Your task to perform on an android device: Clear the cart on target.com. Image 0: 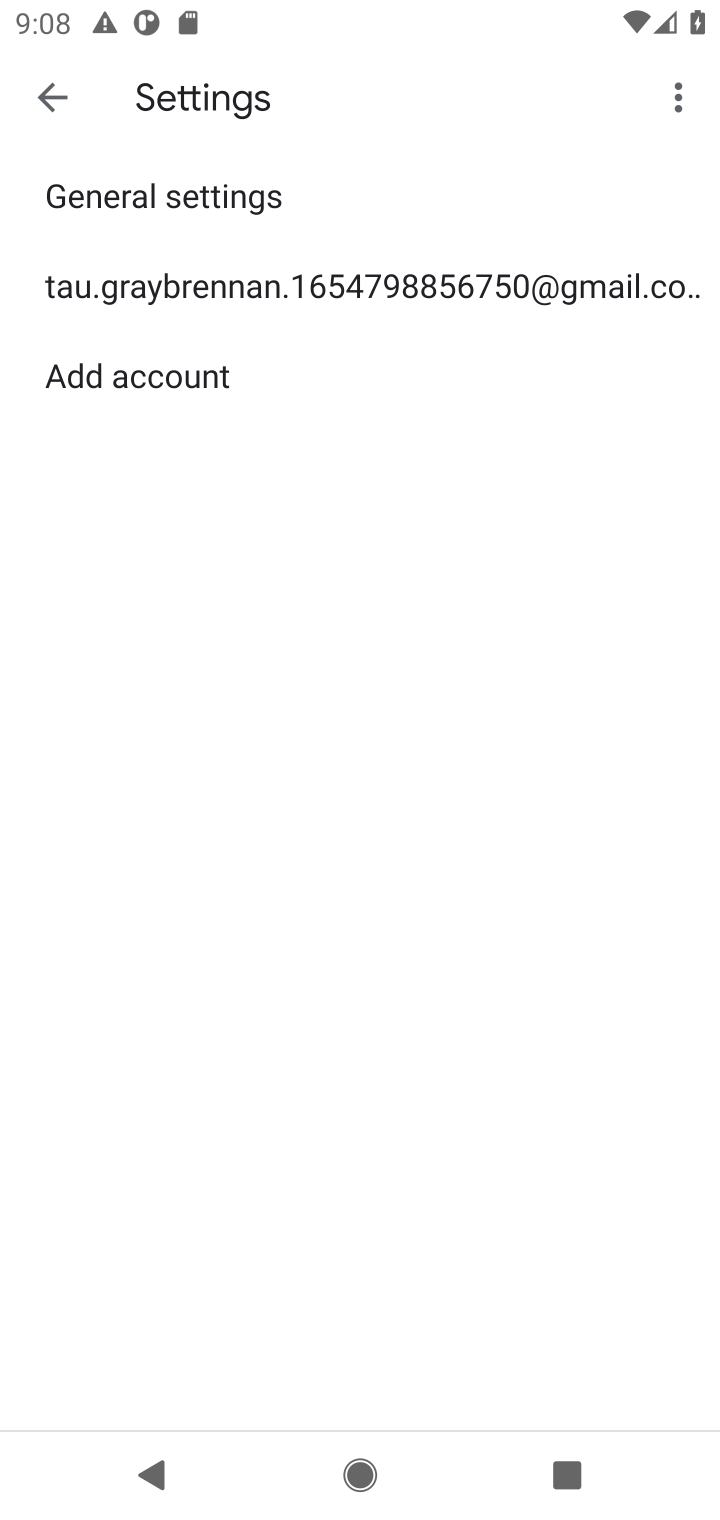
Step 0: press home button
Your task to perform on an android device: Clear the cart on target.com. Image 1: 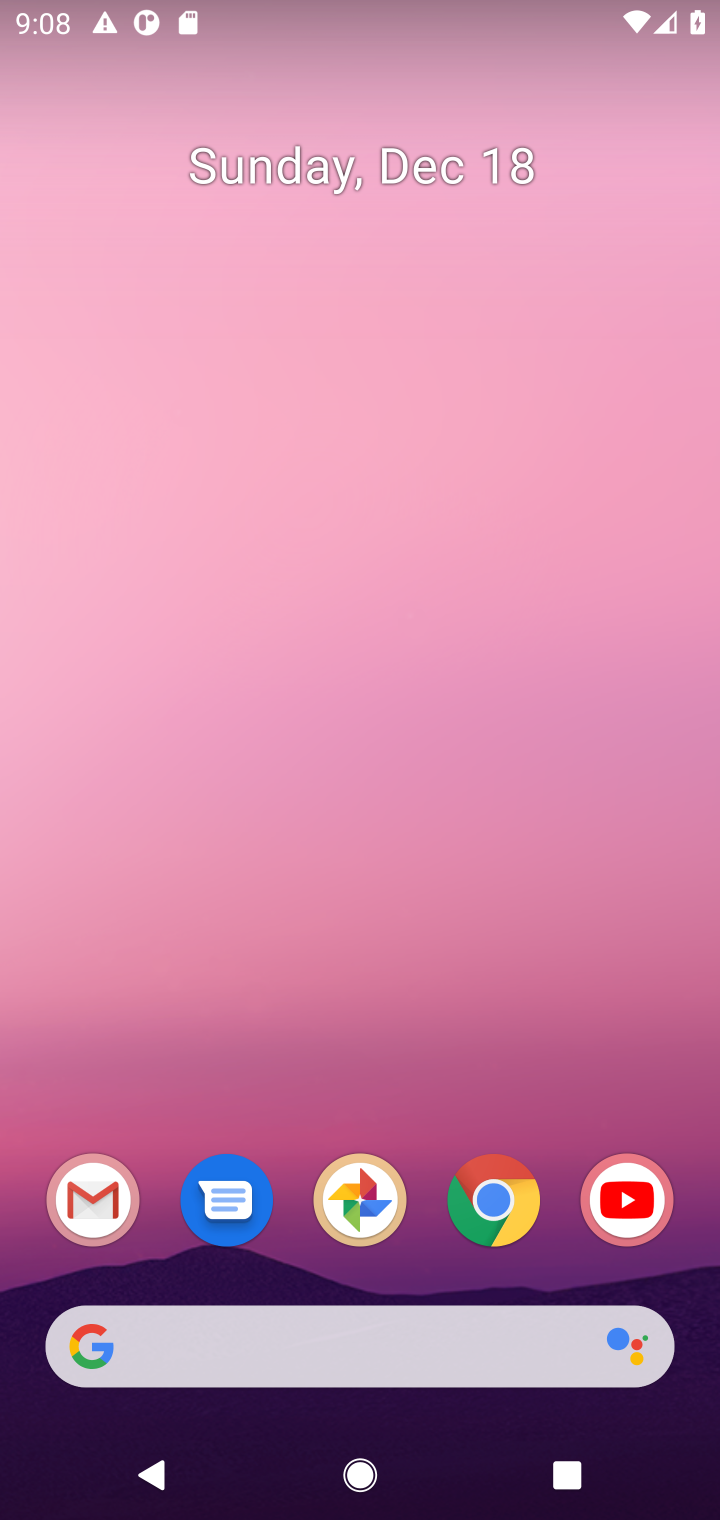
Step 1: click (504, 1192)
Your task to perform on an android device: Clear the cart on target.com. Image 2: 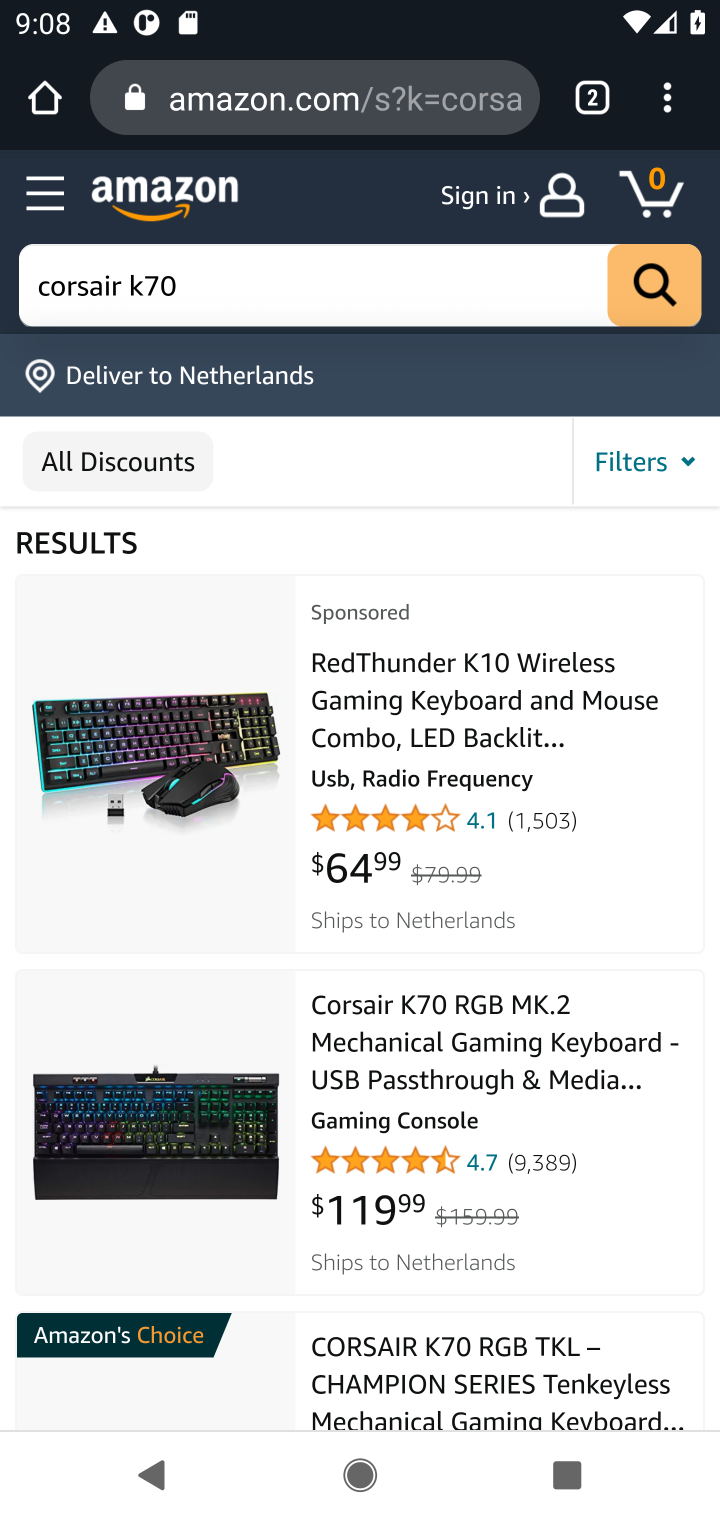
Step 2: click (278, 108)
Your task to perform on an android device: Clear the cart on target.com. Image 3: 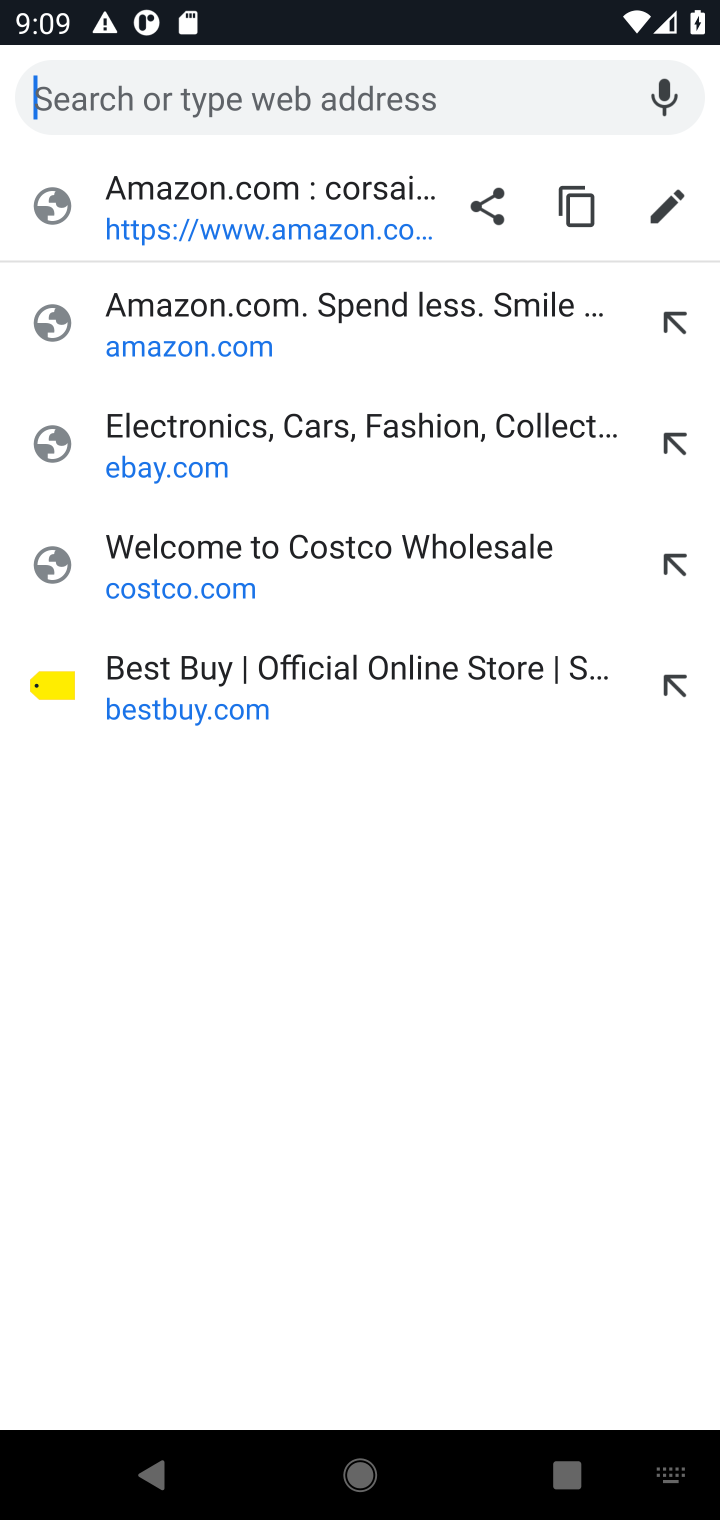
Step 3: type "target.com"
Your task to perform on an android device: Clear the cart on target.com. Image 4: 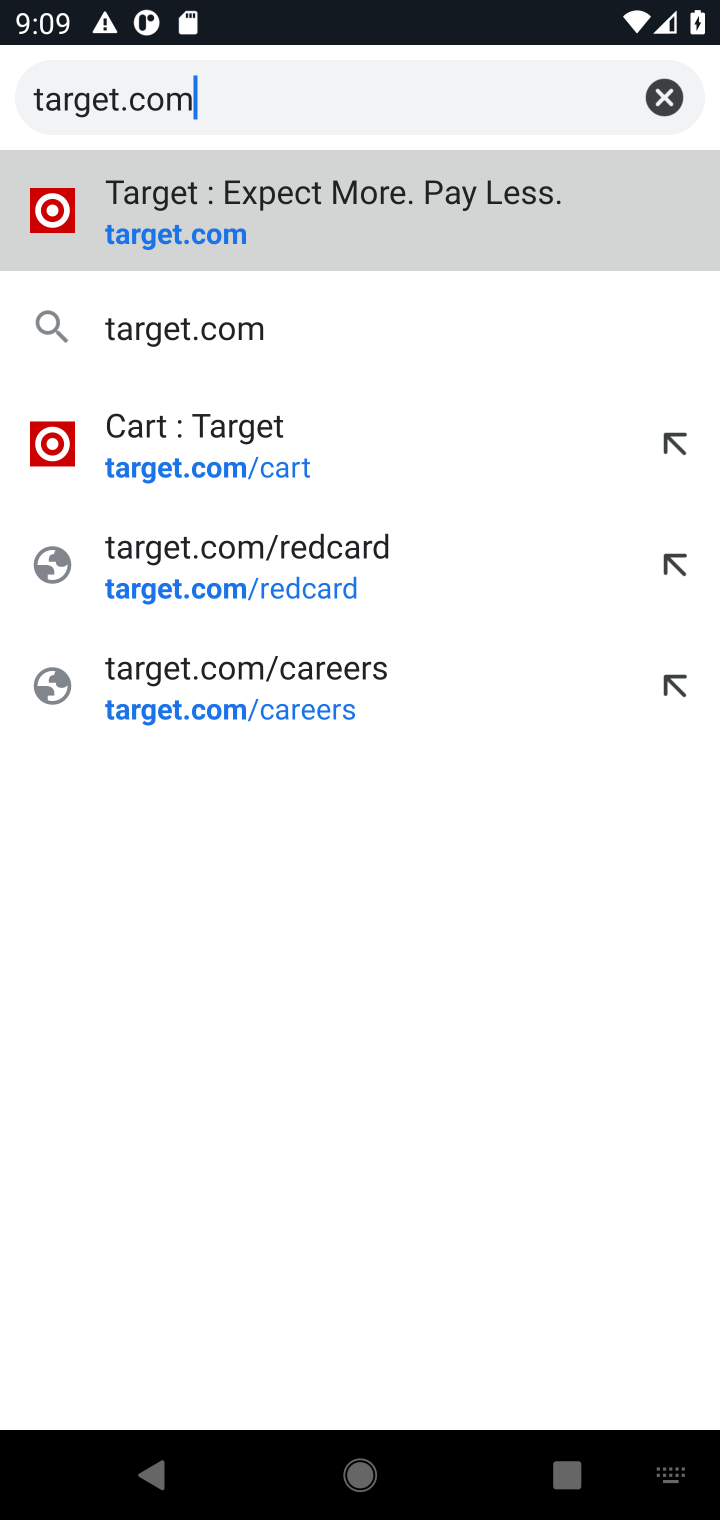
Step 4: click (140, 229)
Your task to perform on an android device: Clear the cart on target.com. Image 5: 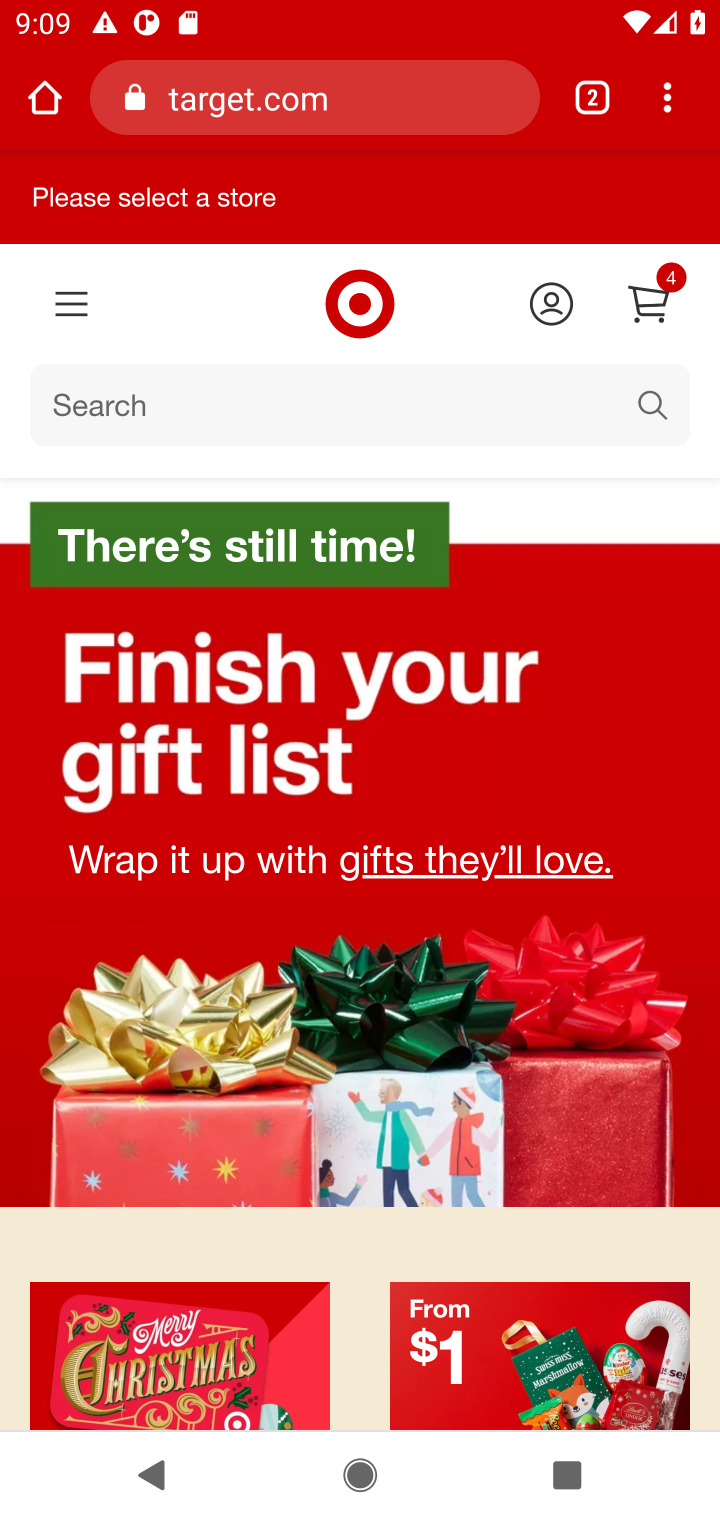
Step 5: click (656, 302)
Your task to perform on an android device: Clear the cart on target.com. Image 6: 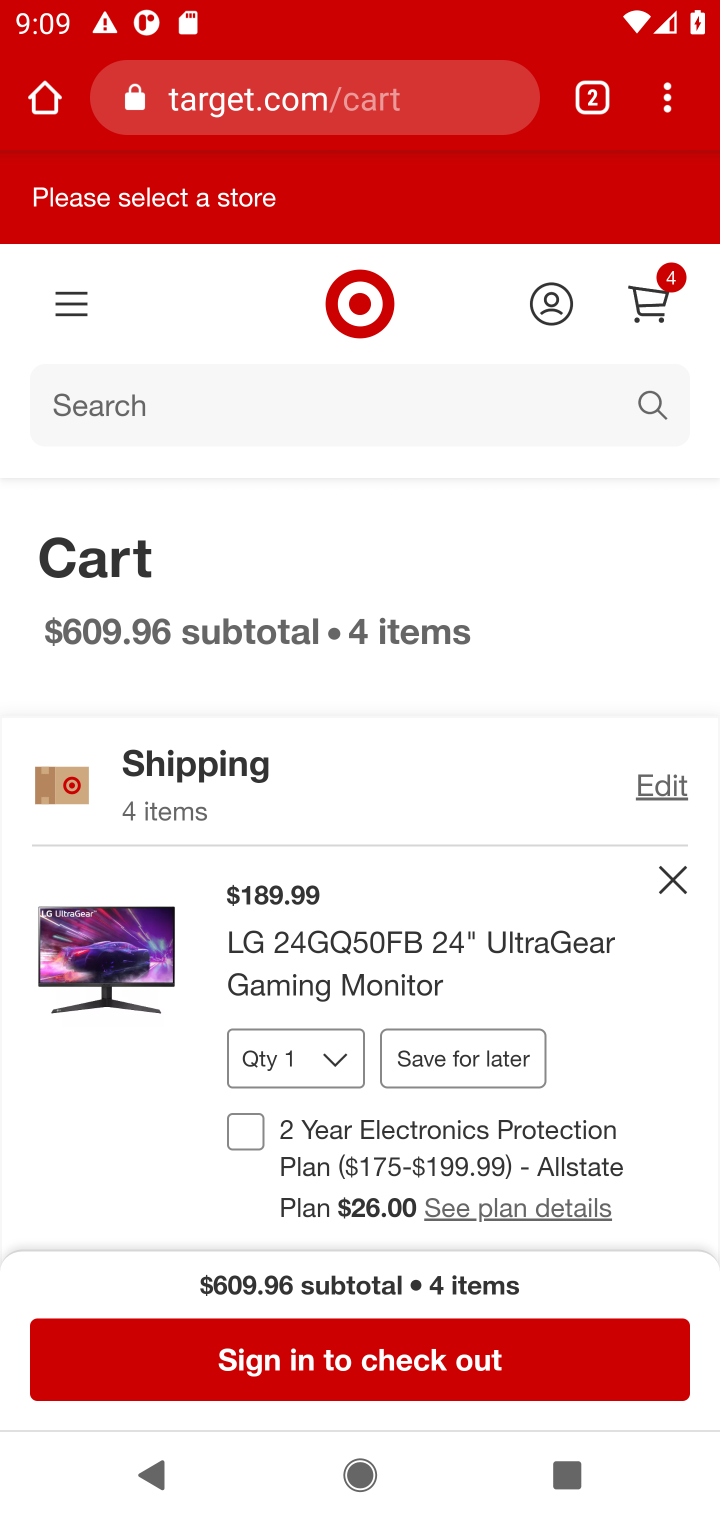
Step 6: click (666, 888)
Your task to perform on an android device: Clear the cart on target.com. Image 7: 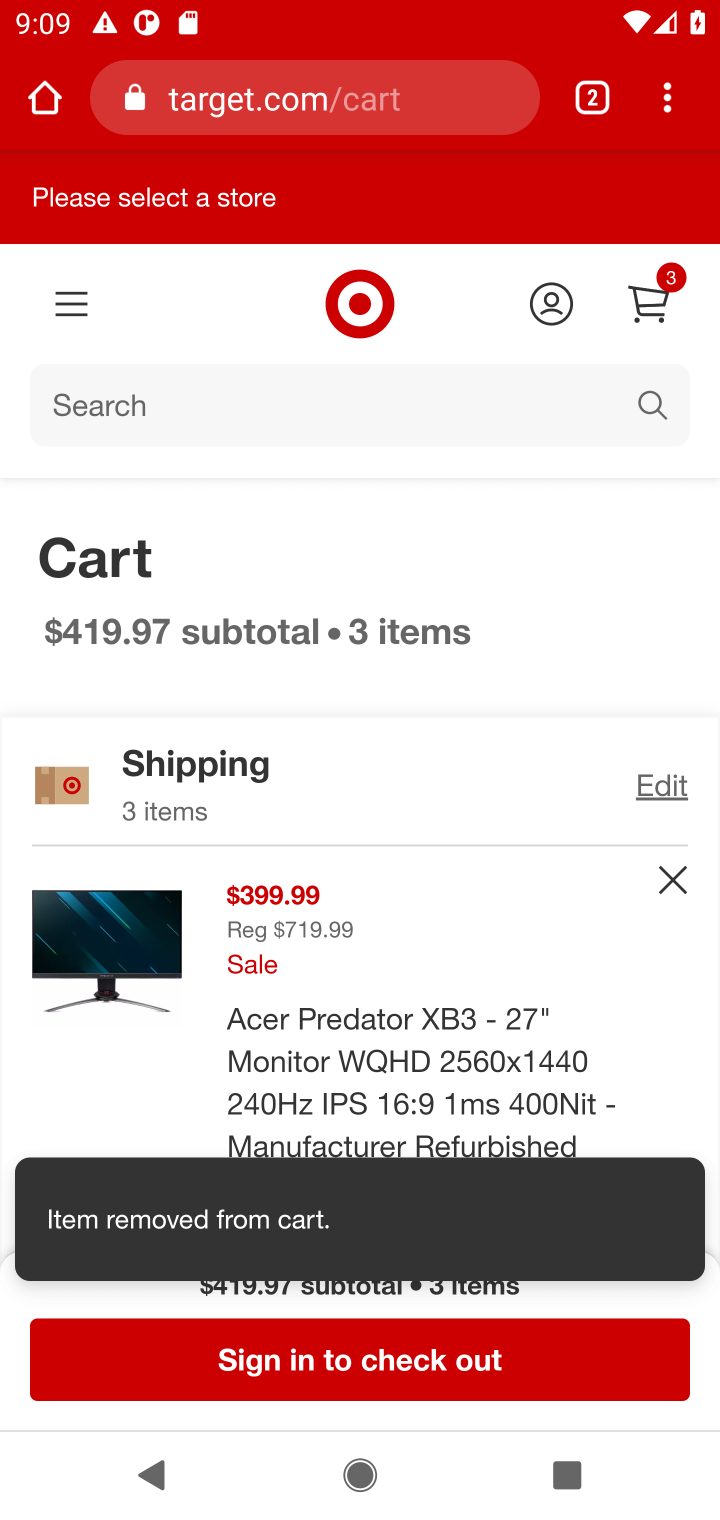
Step 7: click (667, 879)
Your task to perform on an android device: Clear the cart on target.com. Image 8: 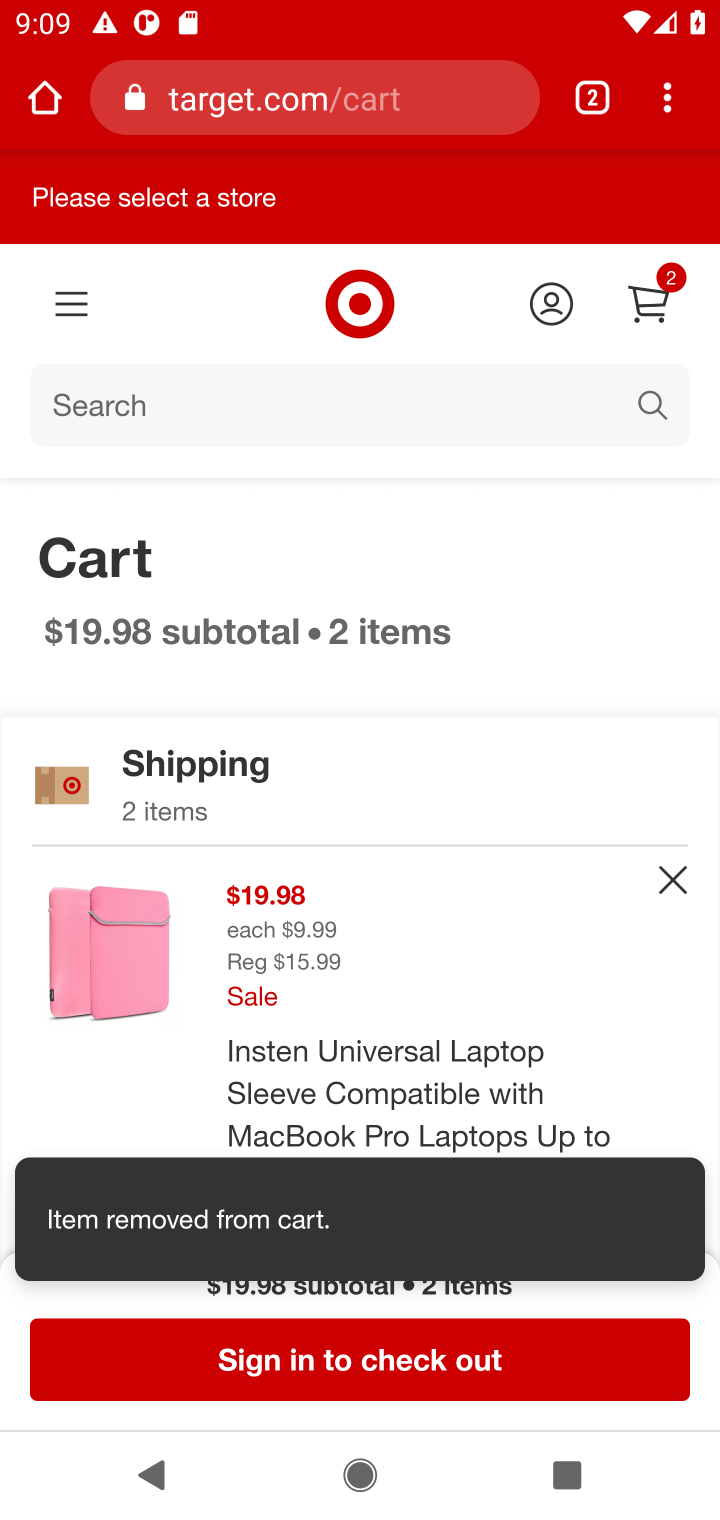
Step 8: click (669, 879)
Your task to perform on an android device: Clear the cart on target.com. Image 9: 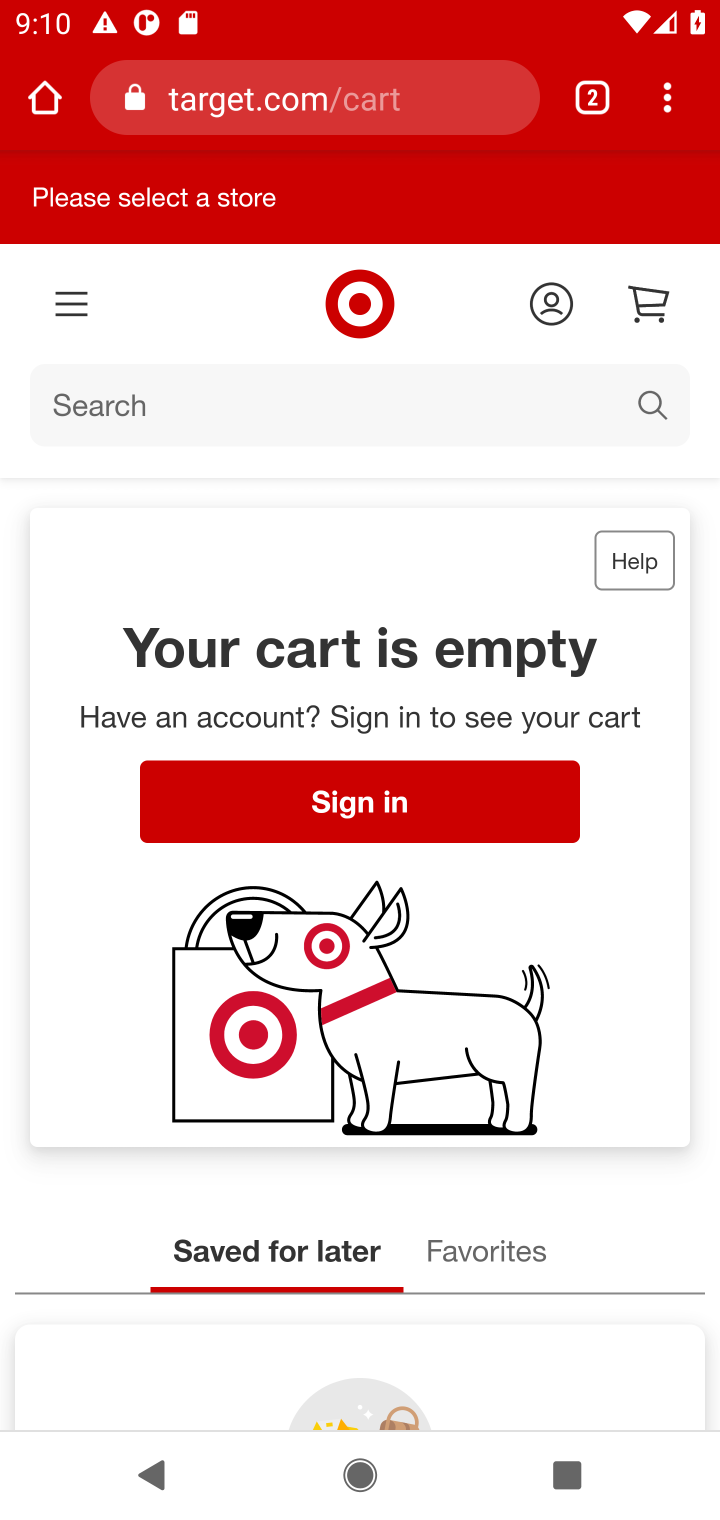
Step 9: task complete